Your task to perform on an android device: Go to Yahoo.com Image 0: 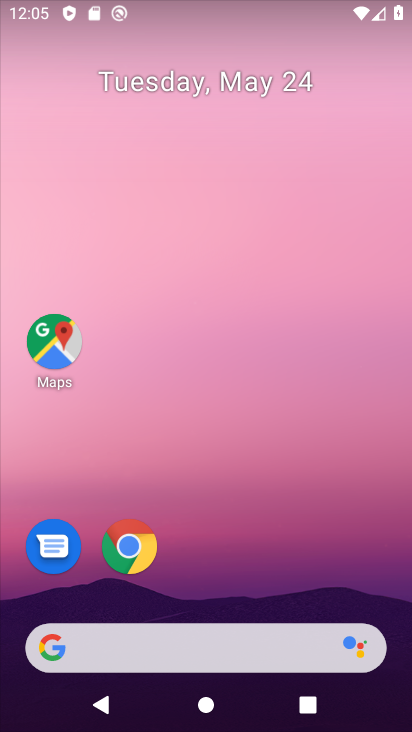
Step 0: drag from (174, 655) to (279, 189)
Your task to perform on an android device: Go to Yahoo.com Image 1: 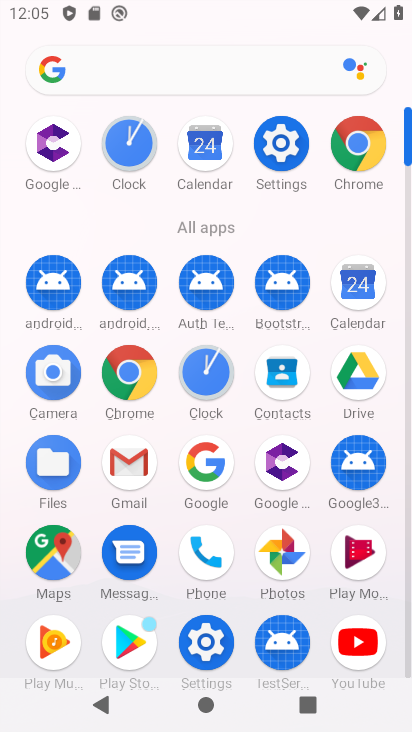
Step 1: click (137, 377)
Your task to perform on an android device: Go to Yahoo.com Image 2: 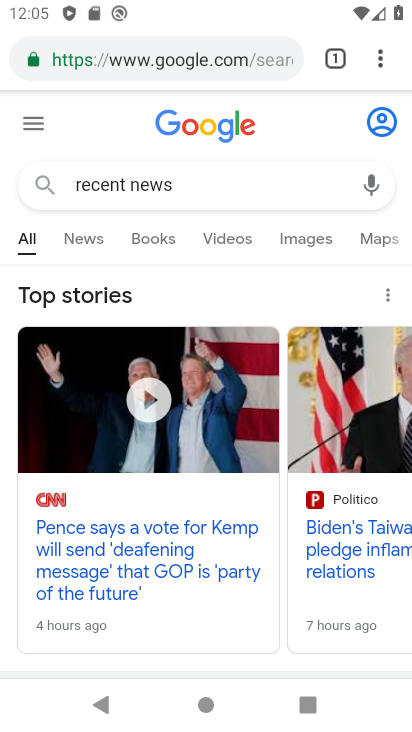
Step 2: drag from (378, 63) to (146, 108)
Your task to perform on an android device: Go to Yahoo.com Image 3: 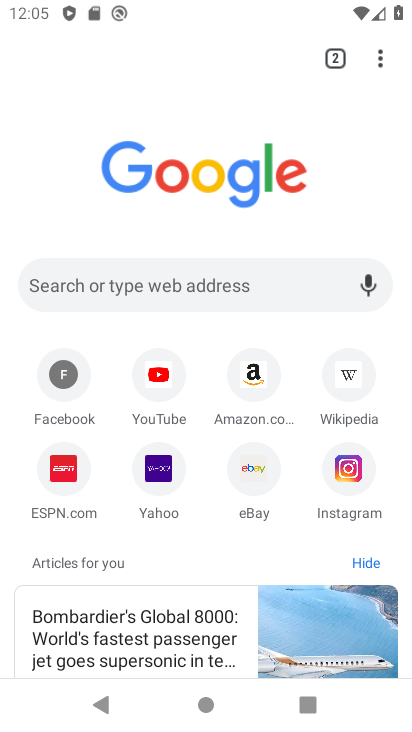
Step 3: click (179, 468)
Your task to perform on an android device: Go to Yahoo.com Image 4: 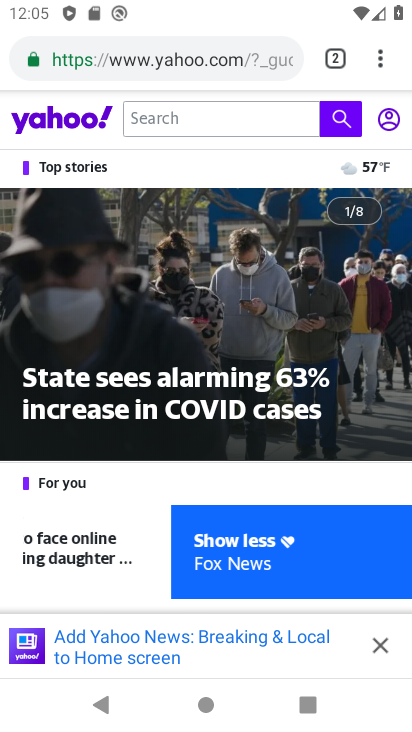
Step 4: task complete